Your task to perform on an android device: Show me popular videos on Youtube Image 0: 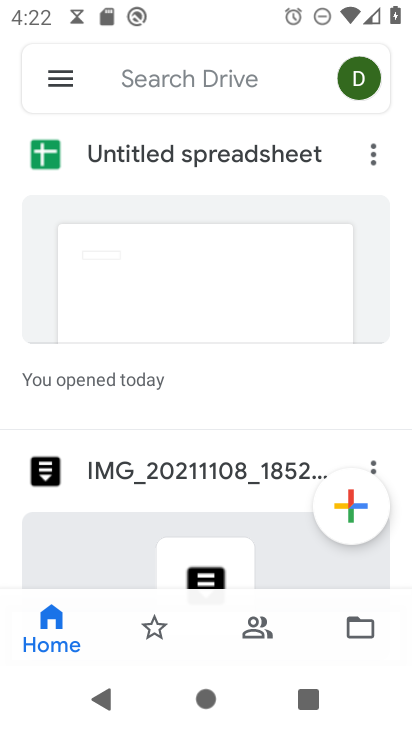
Step 0: press home button
Your task to perform on an android device: Show me popular videos on Youtube Image 1: 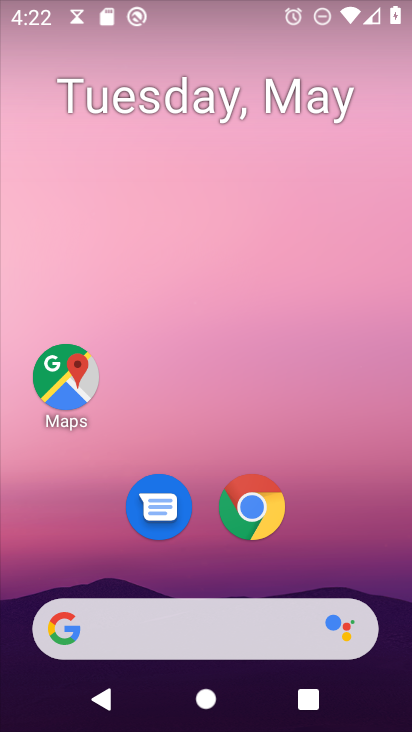
Step 1: drag from (302, 552) to (322, 42)
Your task to perform on an android device: Show me popular videos on Youtube Image 2: 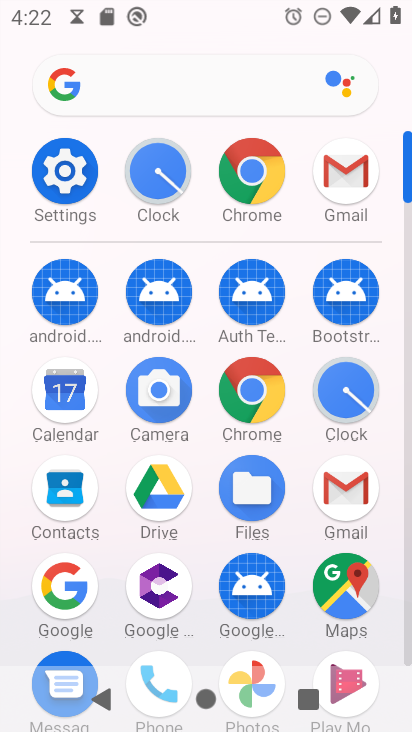
Step 2: drag from (295, 514) to (277, 254)
Your task to perform on an android device: Show me popular videos on Youtube Image 3: 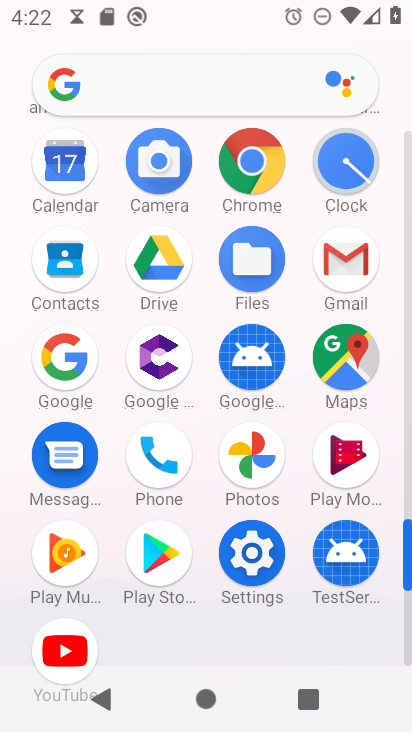
Step 3: click (70, 649)
Your task to perform on an android device: Show me popular videos on Youtube Image 4: 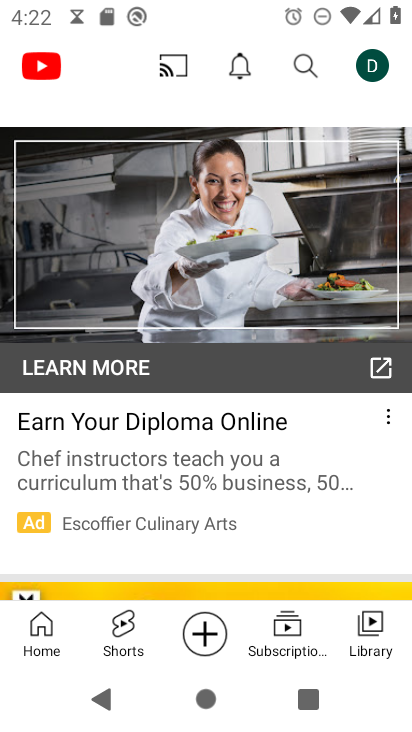
Step 4: drag from (148, 273) to (214, 467)
Your task to perform on an android device: Show me popular videos on Youtube Image 5: 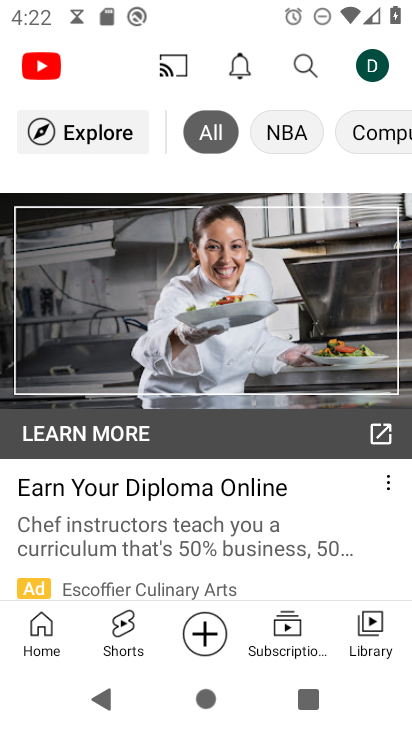
Step 5: click (94, 123)
Your task to perform on an android device: Show me popular videos on Youtube Image 6: 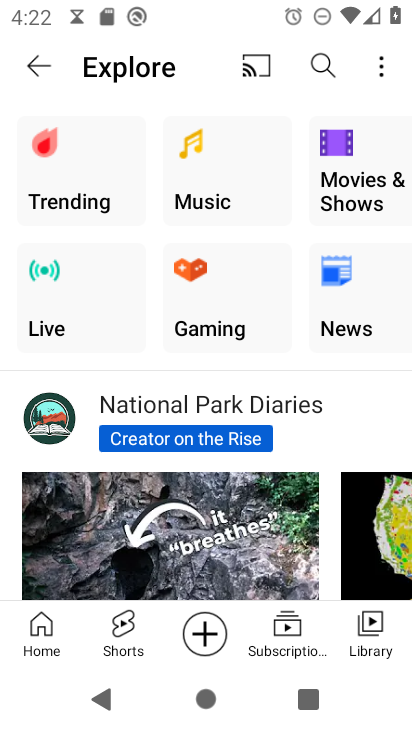
Step 6: click (64, 182)
Your task to perform on an android device: Show me popular videos on Youtube Image 7: 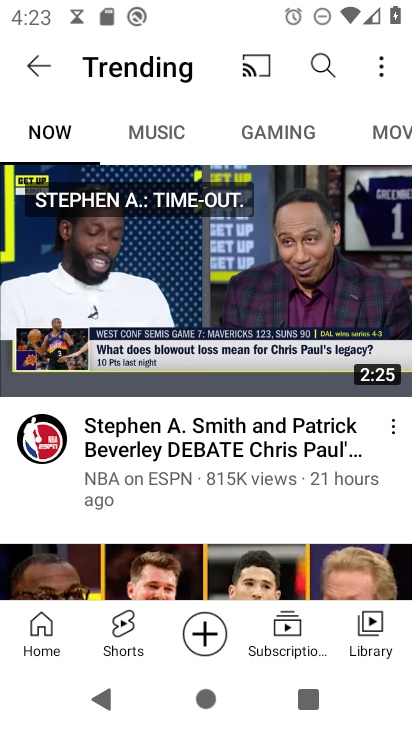
Step 7: task complete